Your task to perform on an android device: When is my next meeting? Image 0: 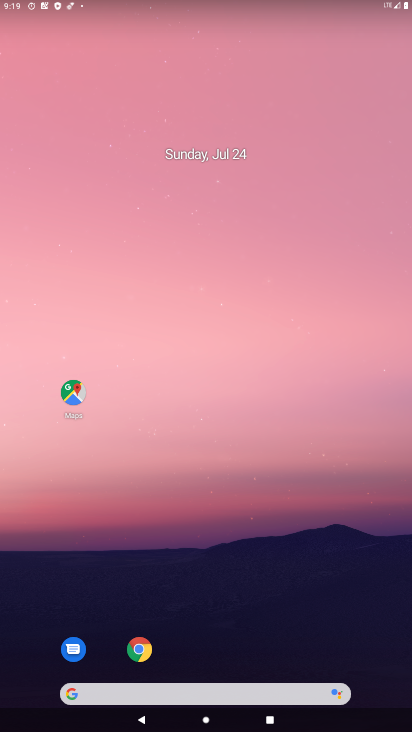
Step 0: drag from (94, 581) to (351, 118)
Your task to perform on an android device: When is my next meeting? Image 1: 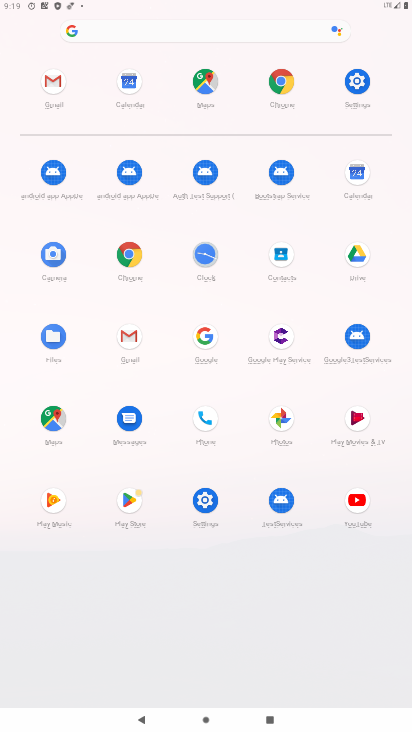
Step 1: click (352, 139)
Your task to perform on an android device: When is my next meeting? Image 2: 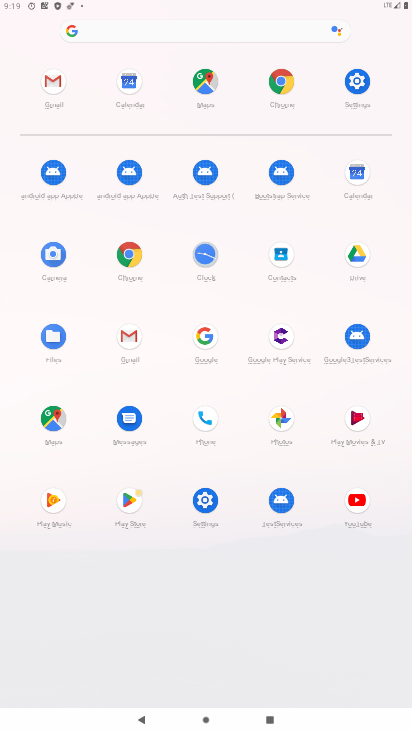
Step 2: click (356, 168)
Your task to perform on an android device: When is my next meeting? Image 3: 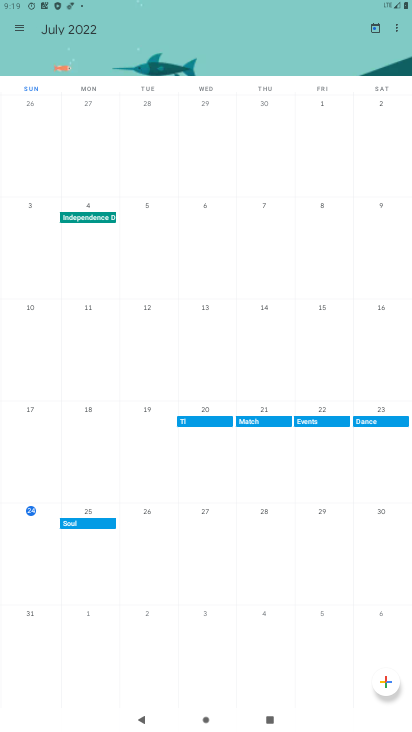
Step 3: task complete